Your task to perform on an android device: turn on priority inbox in the gmail app Image 0: 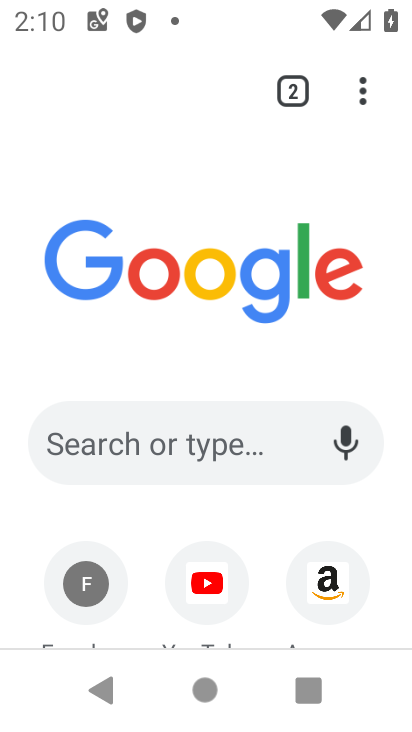
Step 0: press home button
Your task to perform on an android device: turn on priority inbox in the gmail app Image 1: 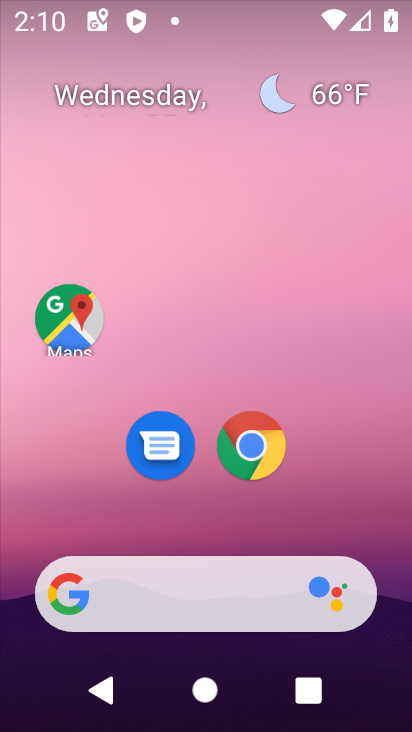
Step 1: press home button
Your task to perform on an android device: turn on priority inbox in the gmail app Image 2: 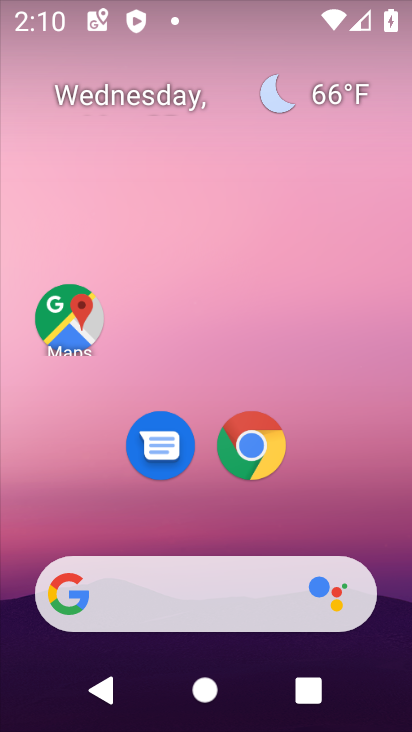
Step 2: drag from (49, 484) to (191, 35)
Your task to perform on an android device: turn on priority inbox in the gmail app Image 3: 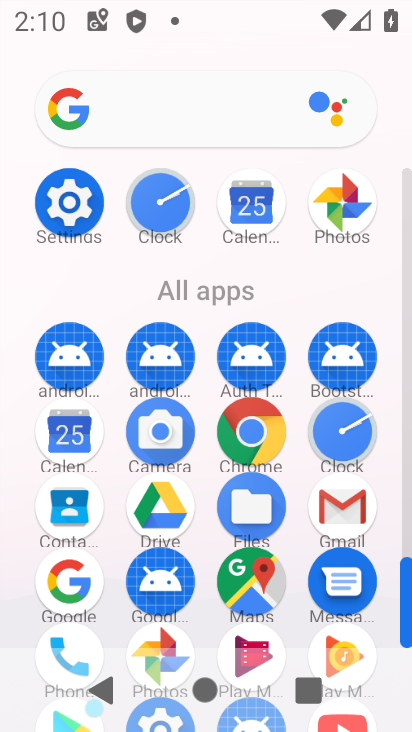
Step 3: click (323, 511)
Your task to perform on an android device: turn on priority inbox in the gmail app Image 4: 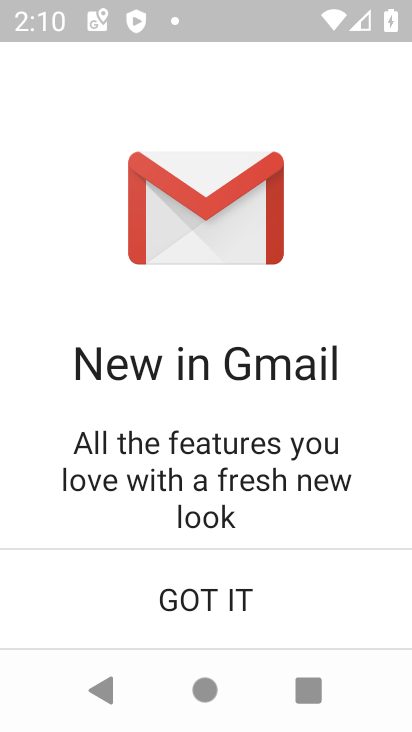
Step 4: click (148, 580)
Your task to perform on an android device: turn on priority inbox in the gmail app Image 5: 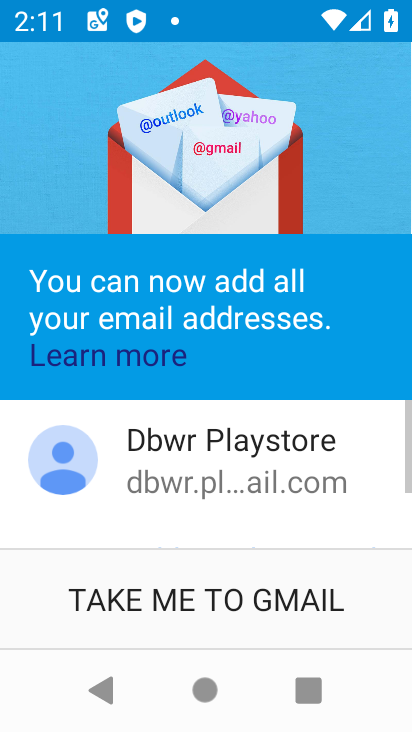
Step 5: click (161, 599)
Your task to perform on an android device: turn on priority inbox in the gmail app Image 6: 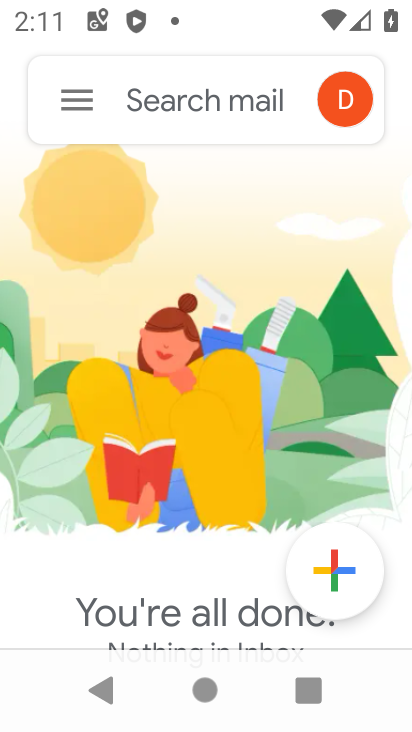
Step 6: click (65, 95)
Your task to perform on an android device: turn on priority inbox in the gmail app Image 7: 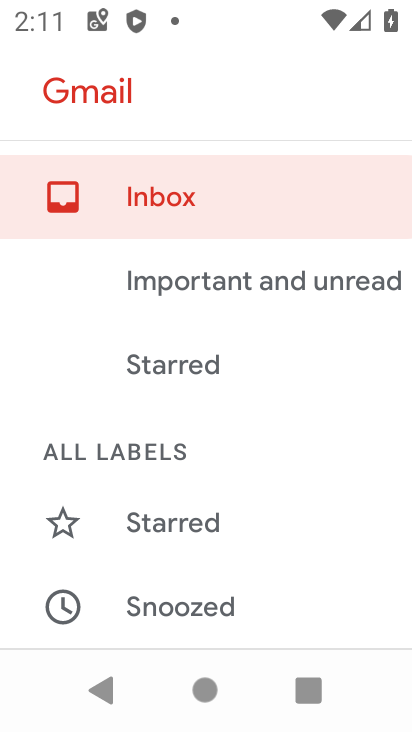
Step 7: drag from (11, 599) to (222, 96)
Your task to perform on an android device: turn on priority inbox in the gmail app Image 8: 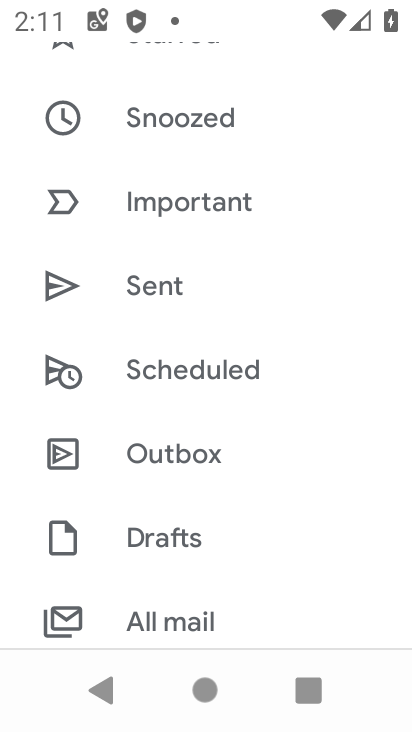
Step 8: drag from (22, 646) to (263, 148)
Your task to perform on an android device: turn on priority inbox in the gmail app Image 9: 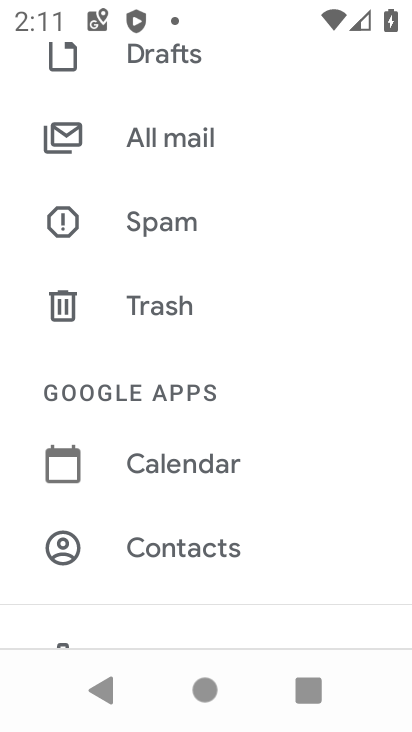
Step 9: drag from (6, 599) to (233, 221)
Your task to perform on an android device: turn on priority inbox in the gmail app Image 10: 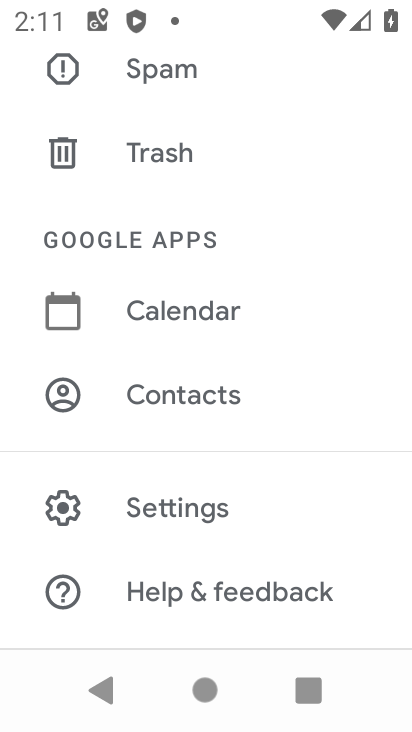
Step 10: click (112, 507)
Your task to perform on an android device: turn on priority inbox in the gmail app Image 11: 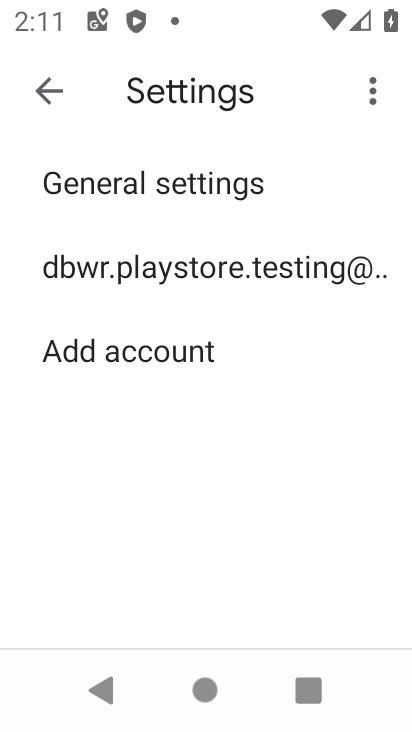
Step 11: click (134, 286)
Your task to perform on an android device: turn on priority inbox in the gmail app Image 12: 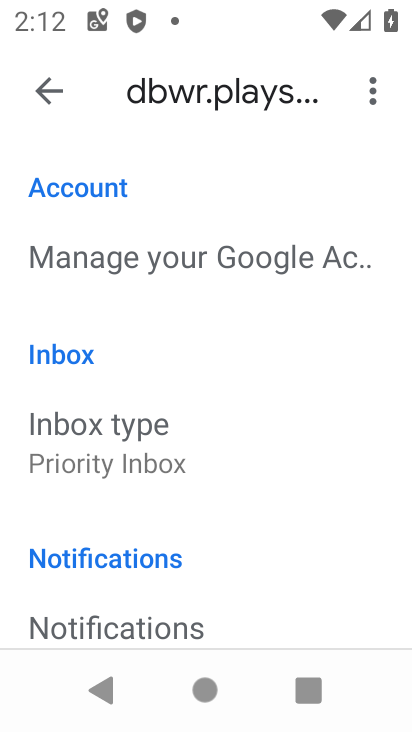
Step 12: task complete